Your task to perform on an android device: Open location settings Image 0: 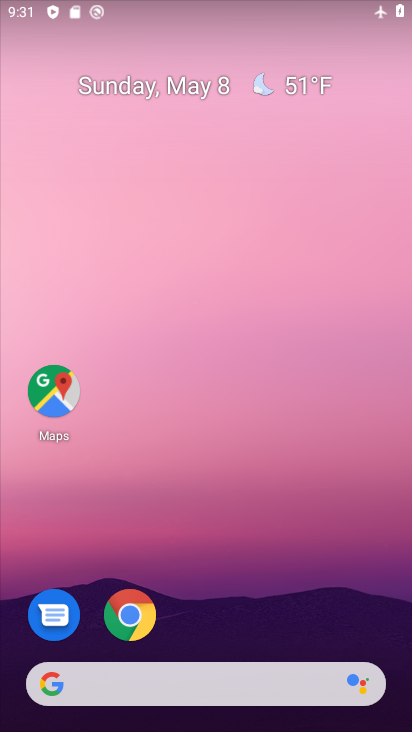
Step 0: drag from (245, 556) to (255, 340)
Your task to perform on an android device: Open location settings Image 1: 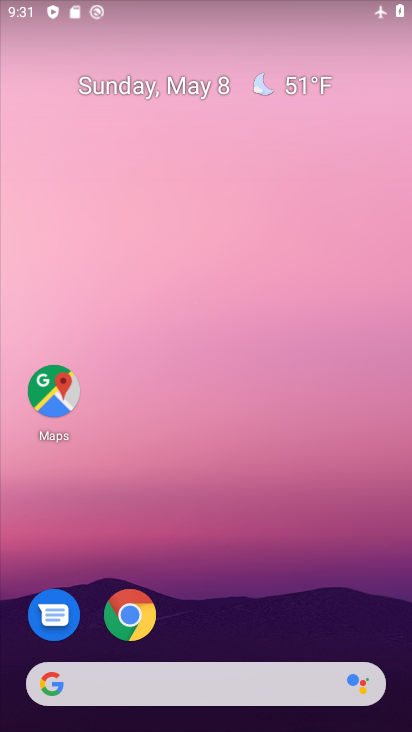
Step 1: drag from (213, 627) to (229, 237)
Your task to perform on an android device: Open location settings Image 2: 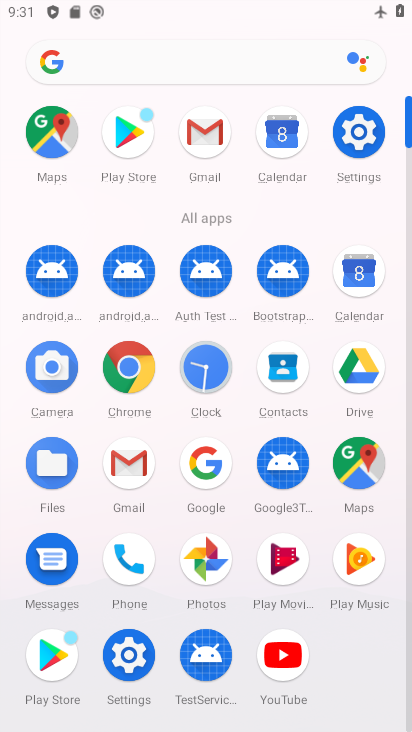
Step 2: click (356, 140)
Your task to perform on an android device: Open location settings Image 3: 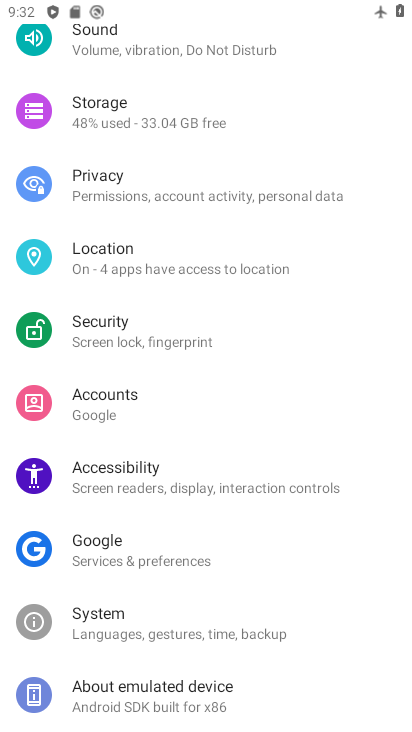
Step 3: click (123, 255)
Your task to perform on an android device: Open location settings Image 4: 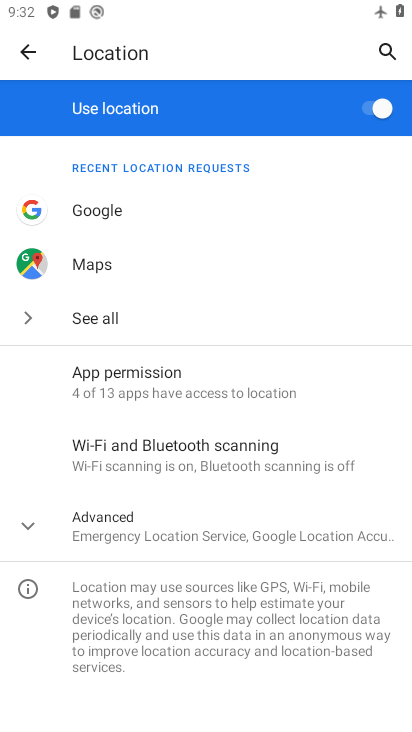
Step 4: task complete